Your task to perform on an android device: Go to Reddit.com Image 0: 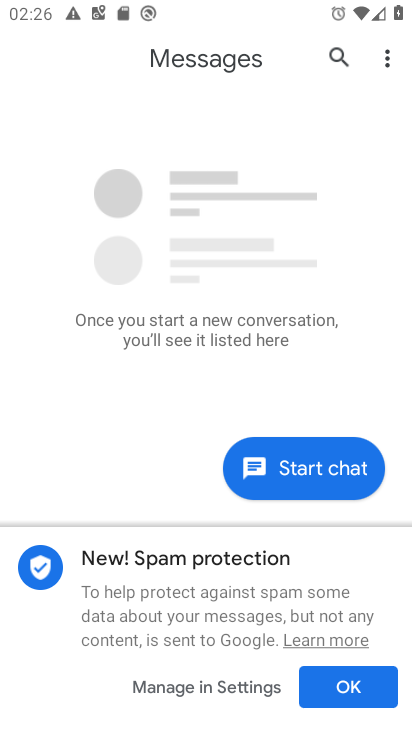
Step 0: press home button
Your task to perform on an android device: Go to Reddit.com Image 1: 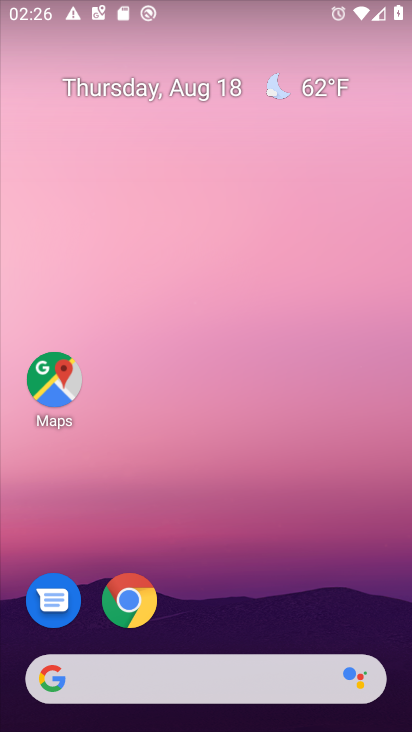
Step 1: click (54, 675)
Your task to perform on an android device: Go to Reddit.com Image 2: 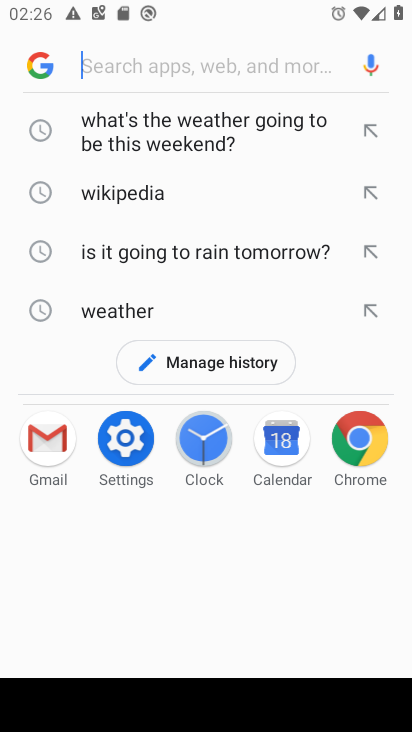
Step 2: type " Reddit.com"
Your task to perform on an android device: Go to Reddit.com Image 3: 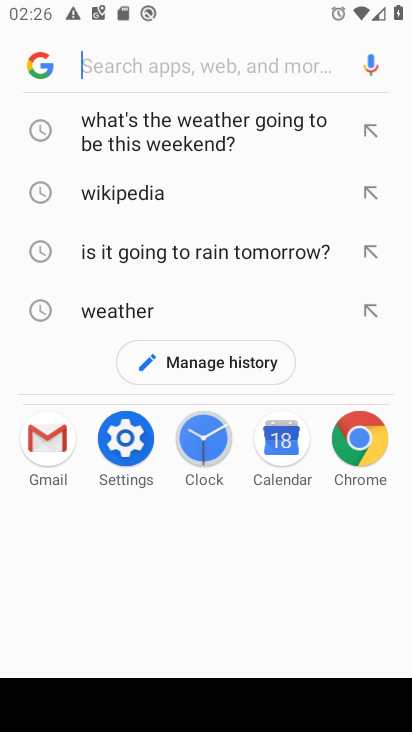
Step 3: click (157, 61)
Your task to perform on an android device: Go to Reddit.com Image 4: 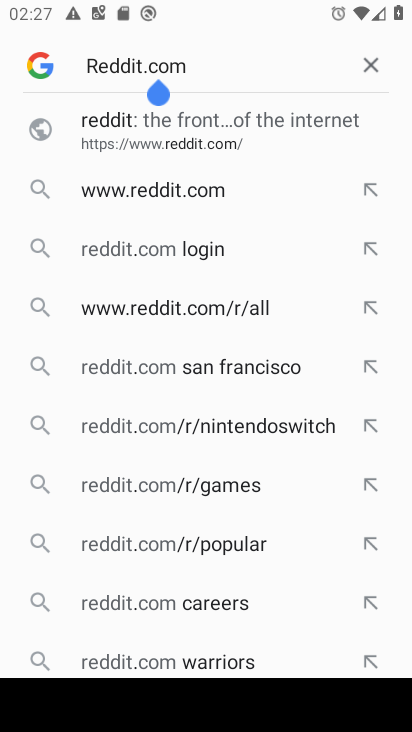
Step 4: click (190, 184)
Your task to perform on an android device: Go to Reddit.com Image 5: 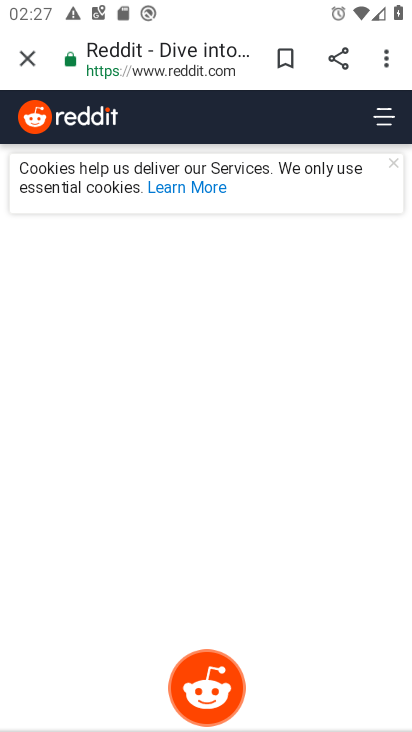
Step 5: click (393, 159)
Your task to perform on an android device: Go to Reddit.com Image 6: 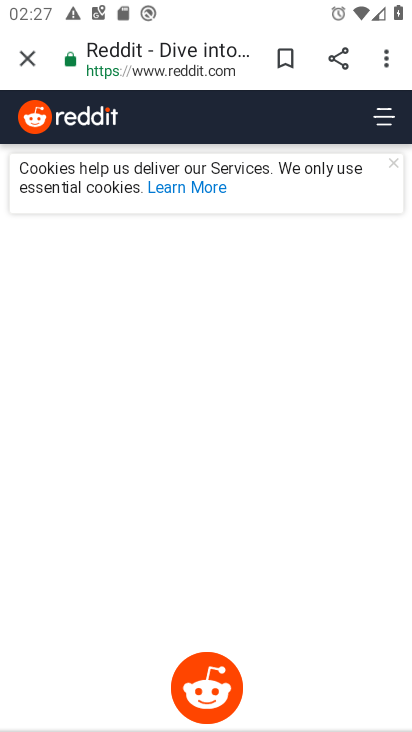
Step 6: task complete